Your task to perform on an android device: turn off priority inbox in the gmail app Image 0: 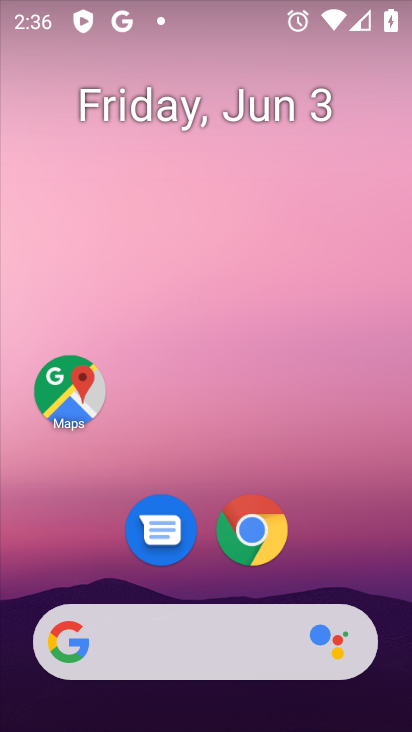
Step 0: drag from (147, 730) to (138, 141)
Your task to perform on an android device: turn off priority inbox in the gmail app Image 1: 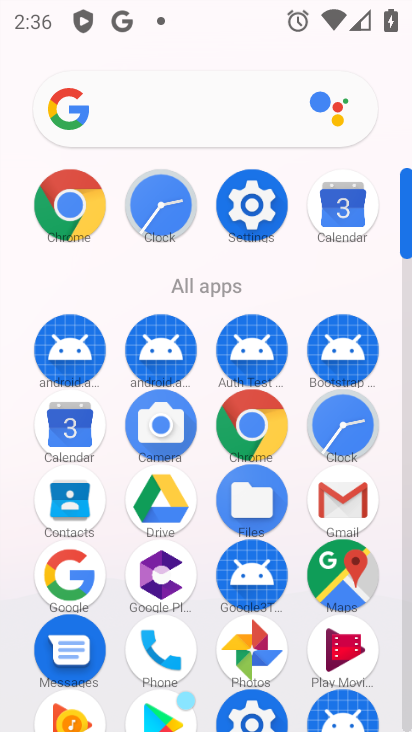
Step 1: click (338, 512)
Your task to perform on an android device: turn off priority inbox in the gmail app Image 2: 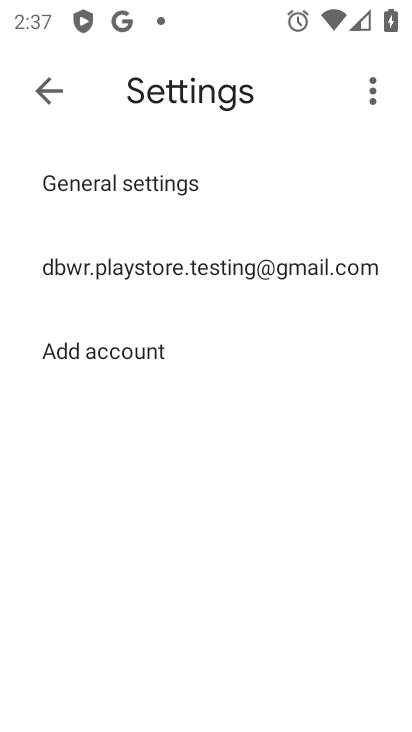
Step 2: click (271, 273)
Your task to perform on an android device: turn off priority inbox in the gmail app Image 3: 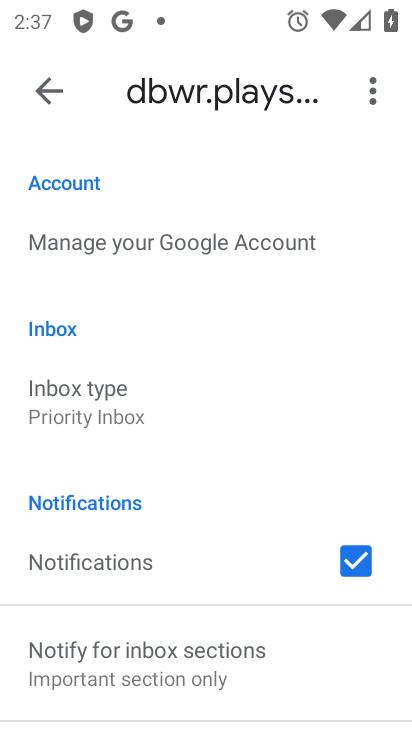
Step 3: click (103, 425)
Your task to perform on an android device: turn off priority inbox in the gmail app Image 4: 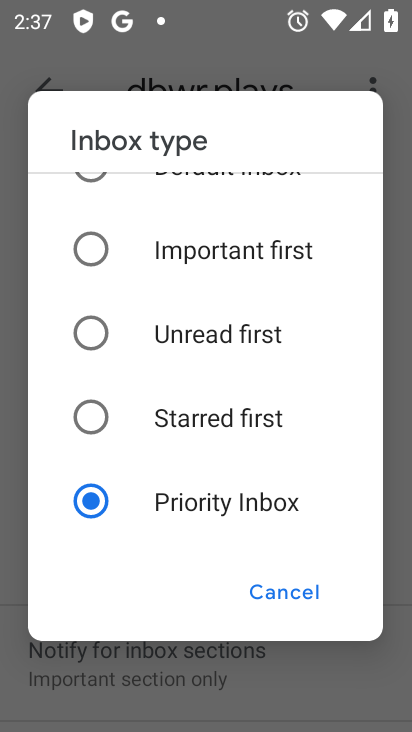
Step 4: task complete